Your task to perform on an android device: Go to CNN.com Image 0: 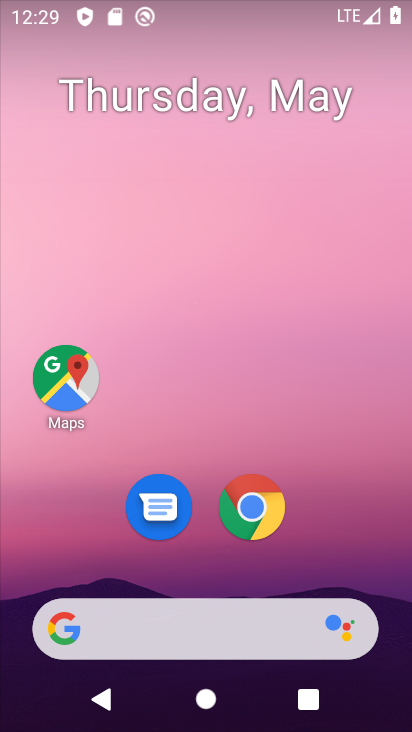
Step 0: click (243, 519)
Your task to perform on an android device: Go to CNN.com Image 1: 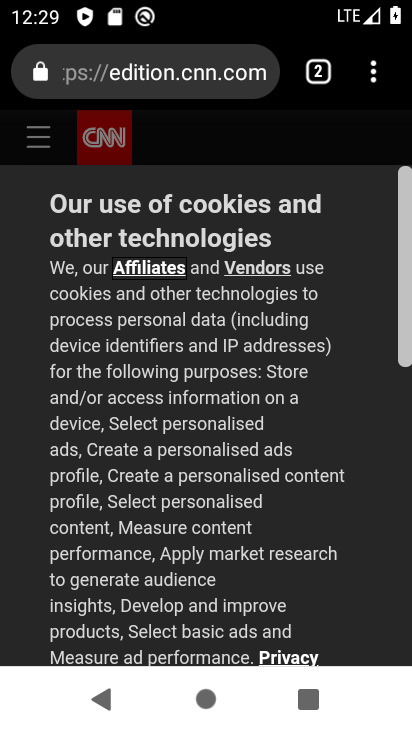
Step 1: task complete